Your task to perform on an android device: turn off javascript in the chrome app Image 0: 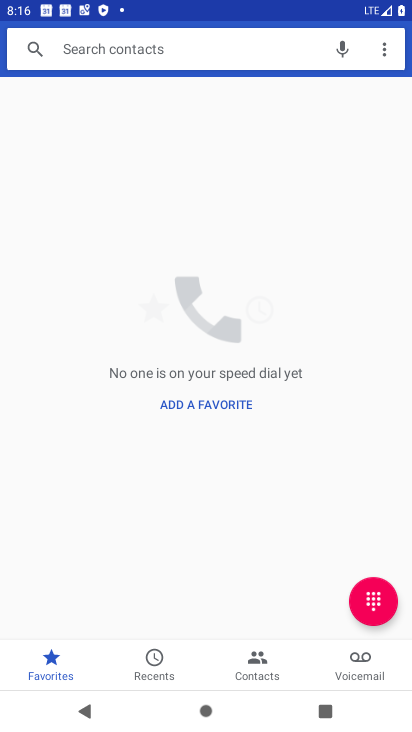
Step 0: press back button
Your task to perform on an android device: turn off javascript in the chrome app Image 1: 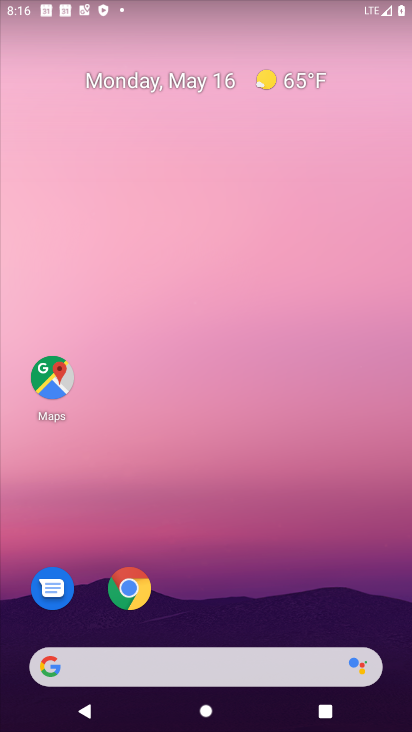
Step 1: drag from (250, 541) to (209, 19)
Your task to perform on an android device: turn off javascript in the chrome app Image 2: 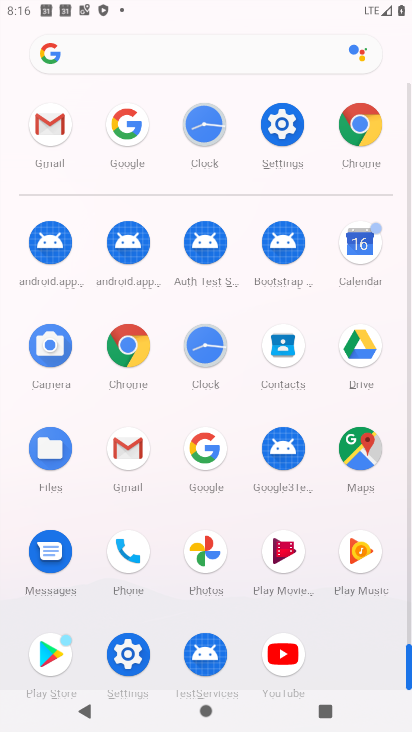
Step 2: click (129, 342)
Your task to perform on an android device: turn off javascript in the chrome app Image 3: 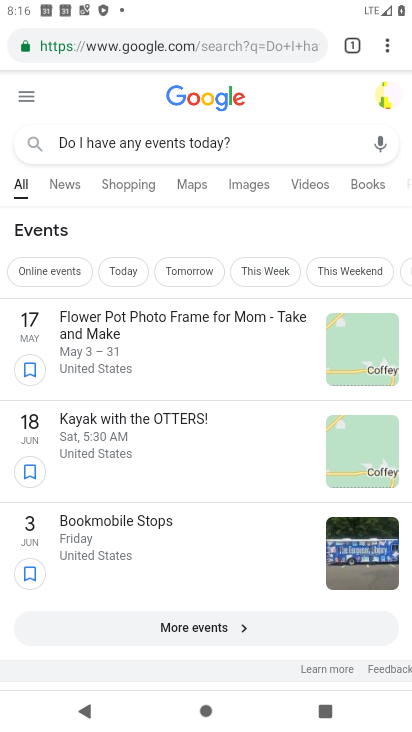
Step 3: drag from (389, 48) to (231, 497)
Your task to perform on an android device: turn off javascript in the chrome app Image 4: 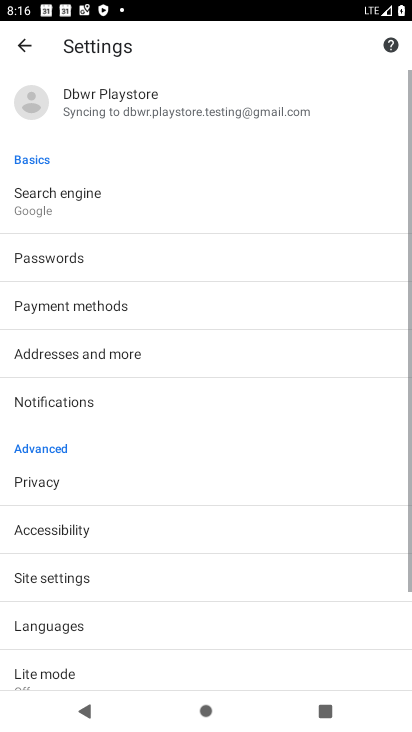
Step 4: drag from (173, 535) to (212, 154)
Your task to perform on an android device: turn off javascript in the chrome app Image 5: 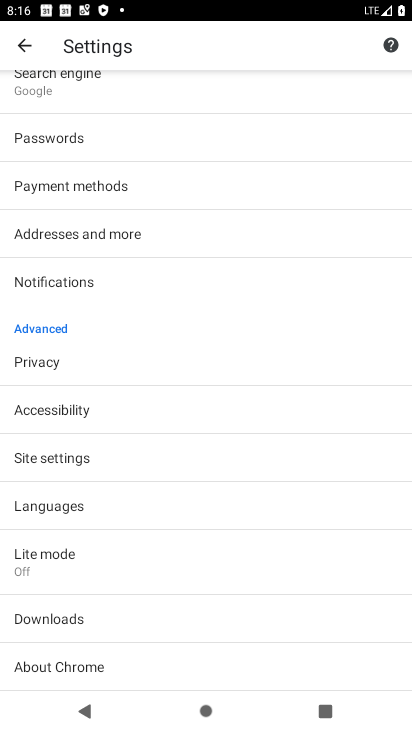
Step 5: drag from (245, 165) to (246, 576)
Your task to perform on an android device: turn off javascript in the chrome app Image 6: 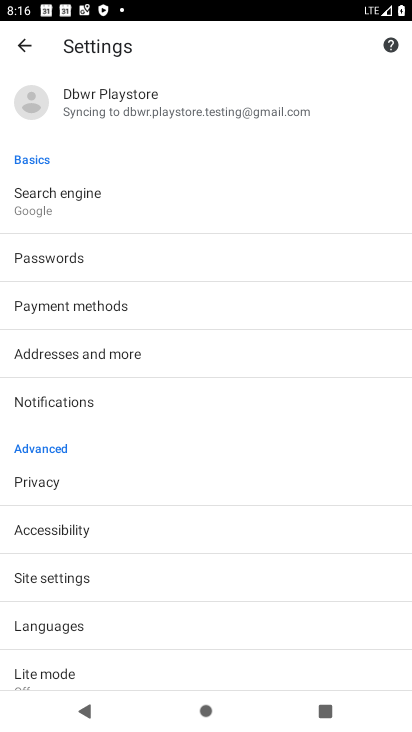
Step 6: drag from (184, 574) to (195, 178)
Your task to perform on an android device: turn off javascript in the chrome app Image 7: 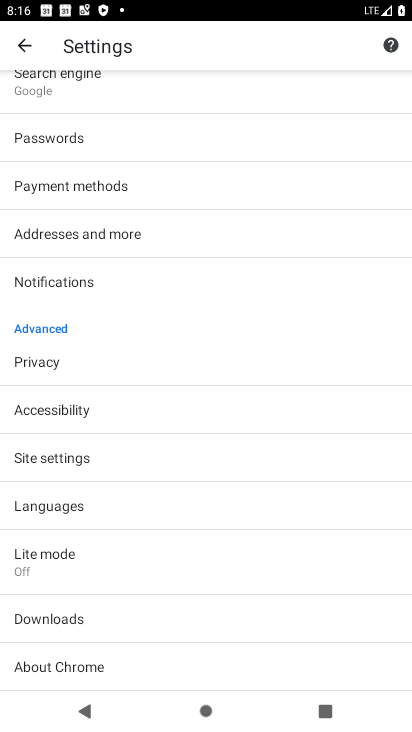
Step 7: click (120, 510)
Your task to perform on an android device: turn off javascript in the chrome app Image 8: 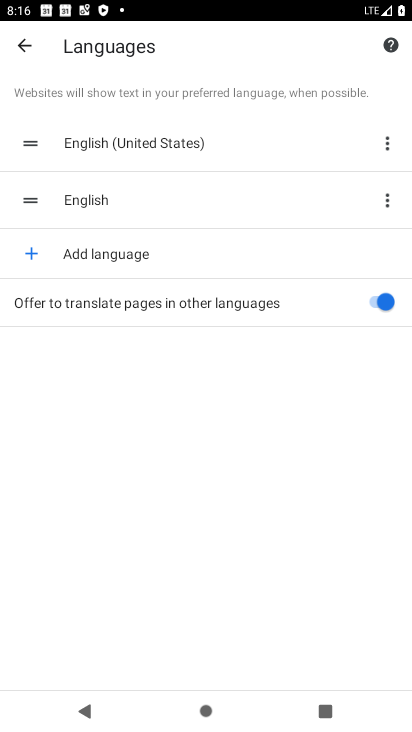
Step 8: click (19, 44)
Your task to perform on an android device: turn off javascript in the chrome app Image 9: 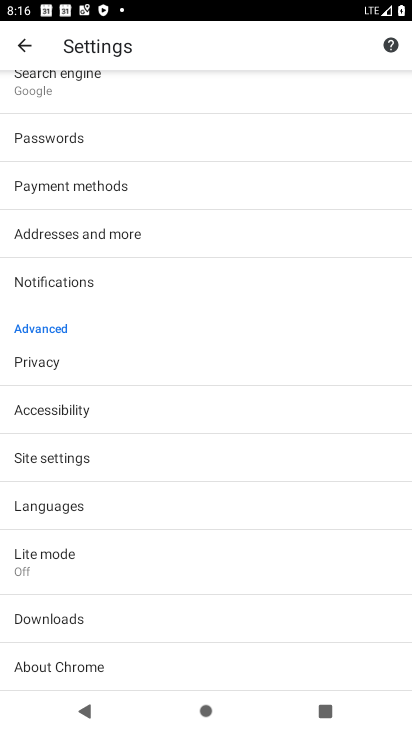
Step 9: click (100, 454)
Your task to perform on an android device: turn off javascript in the chrome app Image 10: 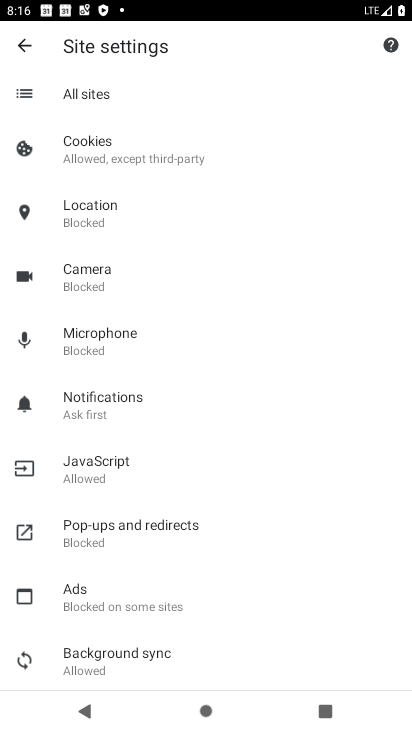
Step 10: click (114, 479)
Your task to perform on an android device: turn off javascript in the chrome app Image 11: 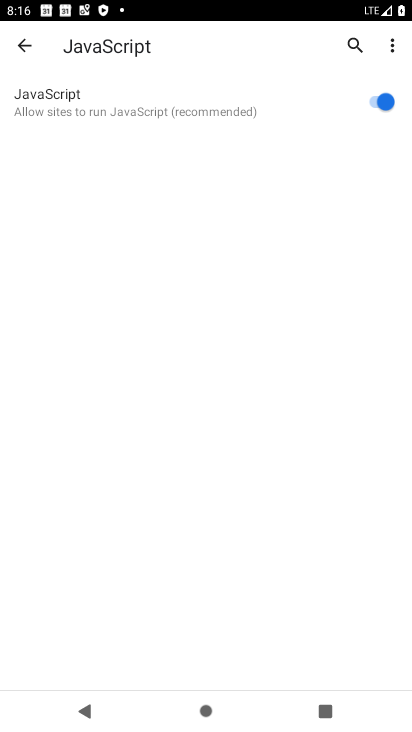
Step 11: click (375, 103)
Your task to perform on an android device: turn off javascript in the chrome app Image 12: 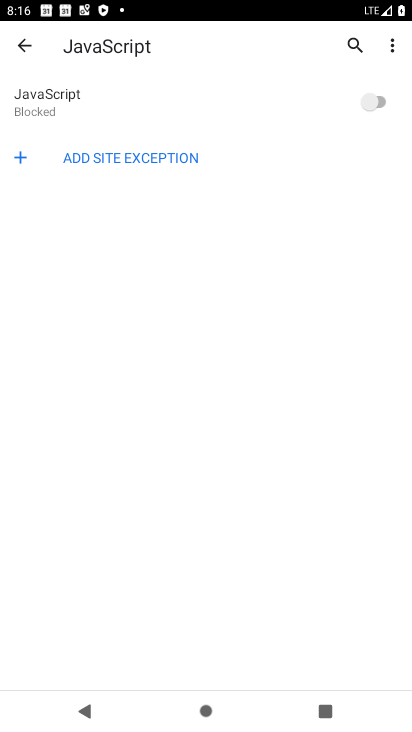
Step 12: task complete